Your task to perform on an android device: change your default location settings in chrome Image 0: 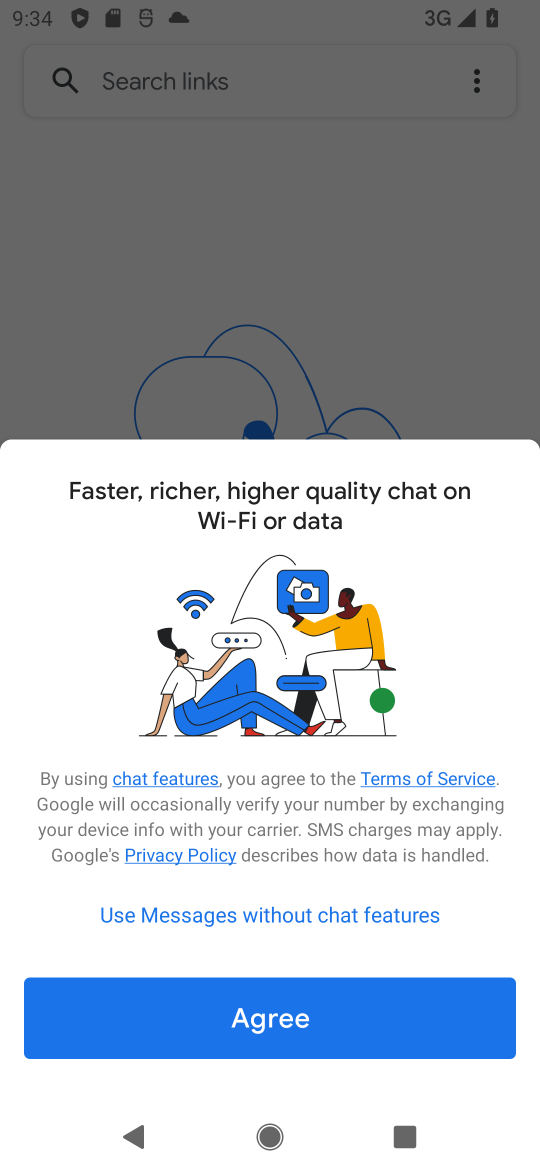
Step 0: press home button
Your task to perform on an android device: change your default location settings in chrome Image 1: 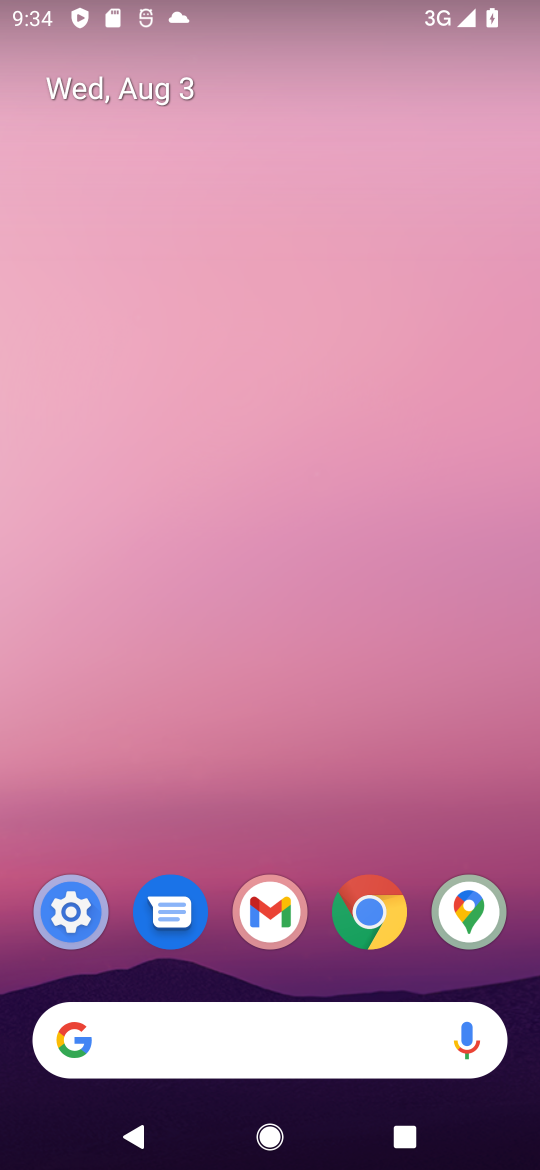
Step 1: drag from (466, 840) to (464, 14)
Your task to perform on an android device: change your default location settings in chrome Image 2: 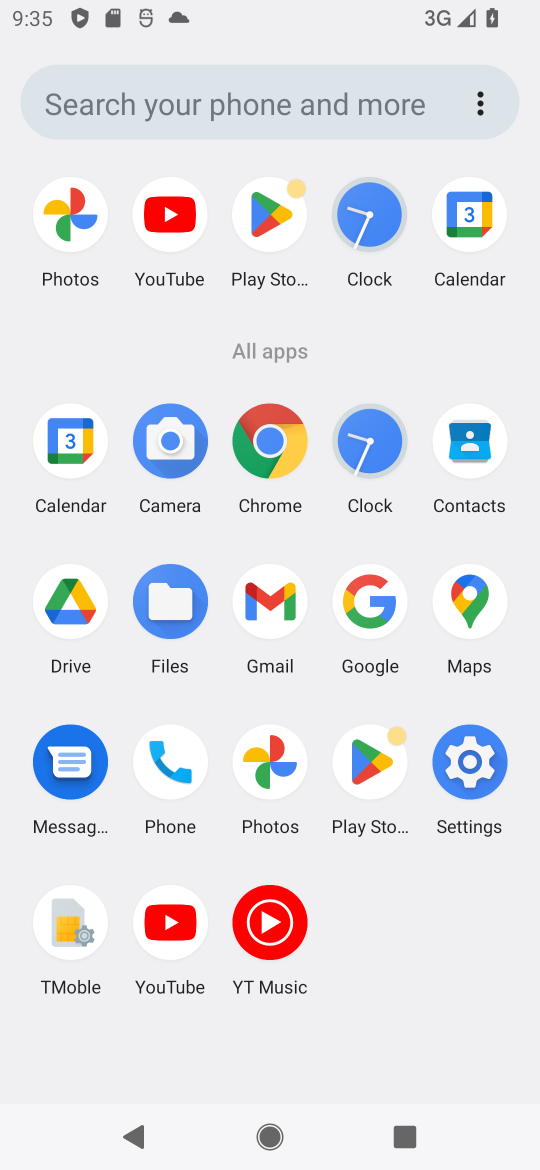
Step 2: click (281, 460)
Your task to perform on an android device: change your default location settings in chrome Image 3: 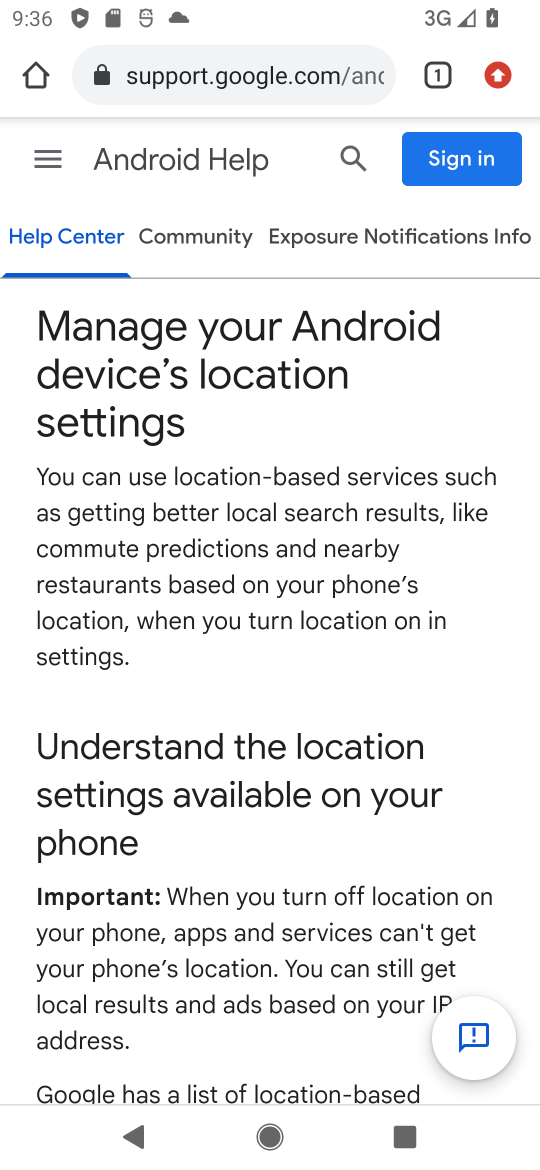
Step 3: task complete